Your task to perform on an android device: Empty the shopping cart on costco. Add razer blade to the cart on costco Image 0: 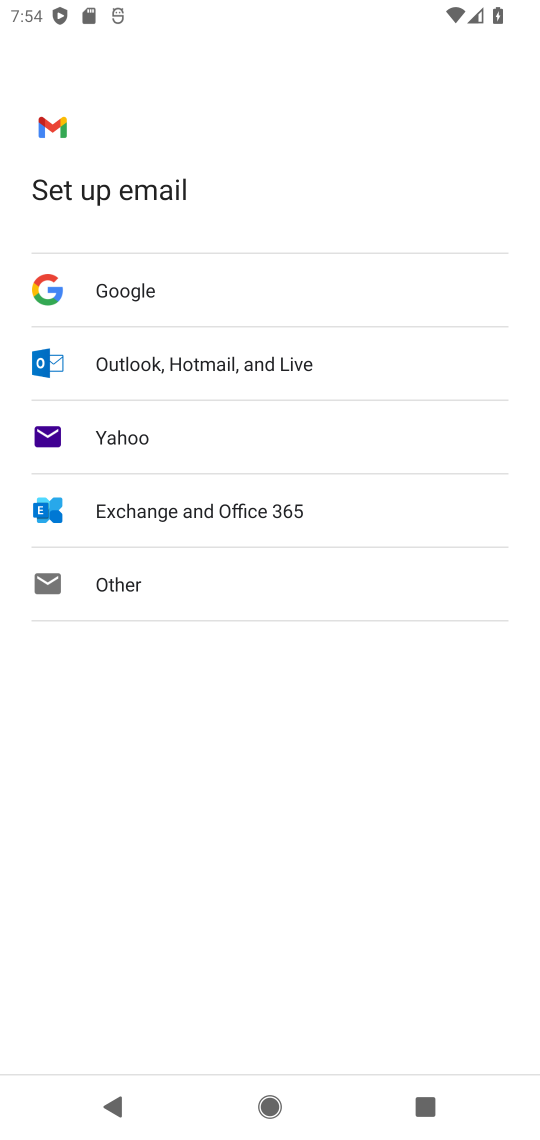
Step 0: press home button
Your task to perform on an android device: Empty the shopping cart on costco. Add razer blade to the cart on costco Image 1: 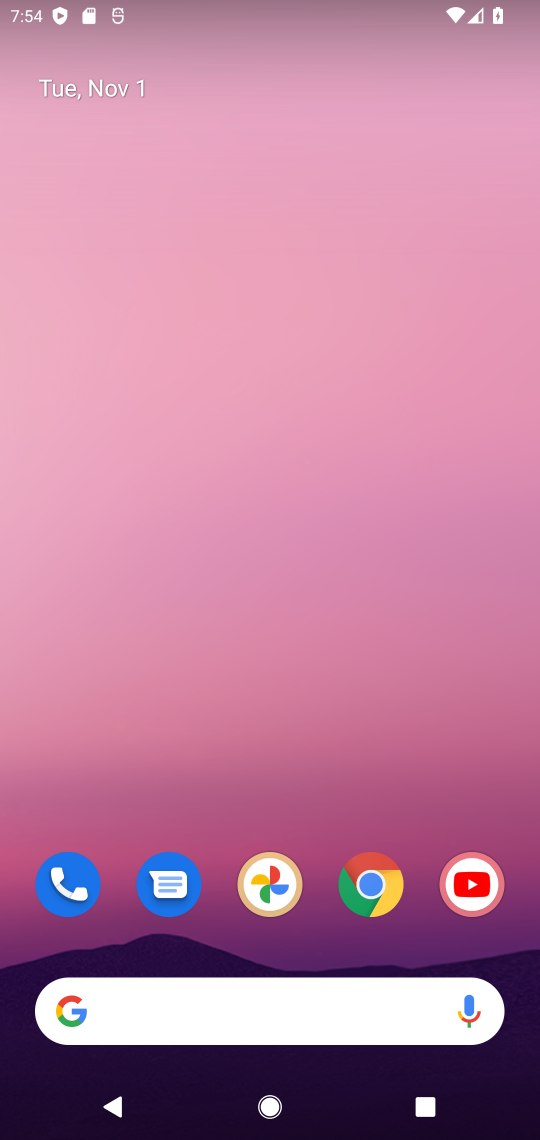
Step 1: click (372, 880)
Your task to perform on an android device: Empty the shopping cart on costco. Add razer blade to the cart on costco Image 2: 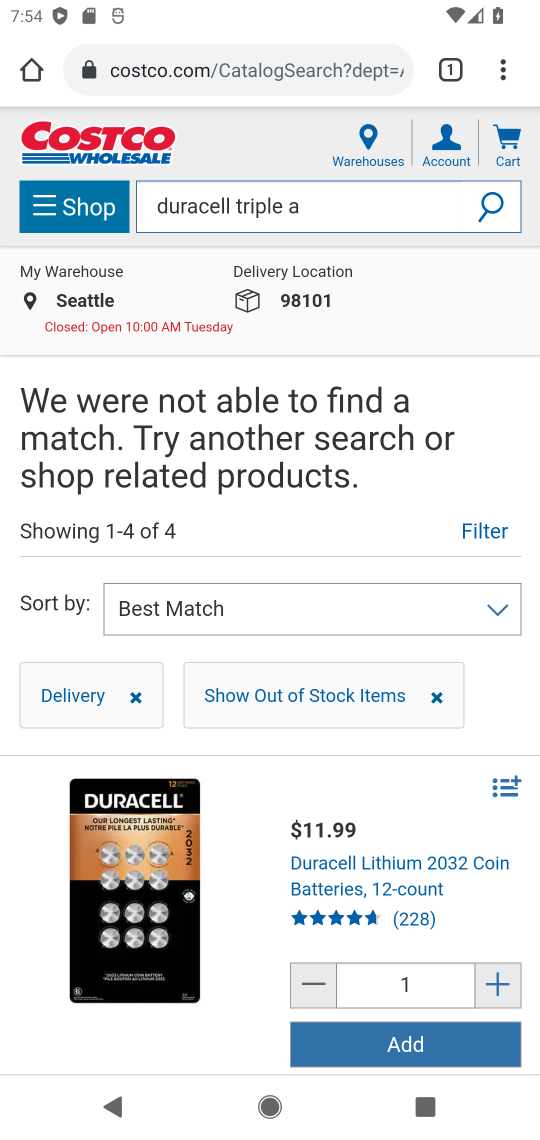
Step 2: click (308, 65)
Your task to perform on an android device: Empty the shopping cart on costco. Add razer blade to the cart on costco Image 3: 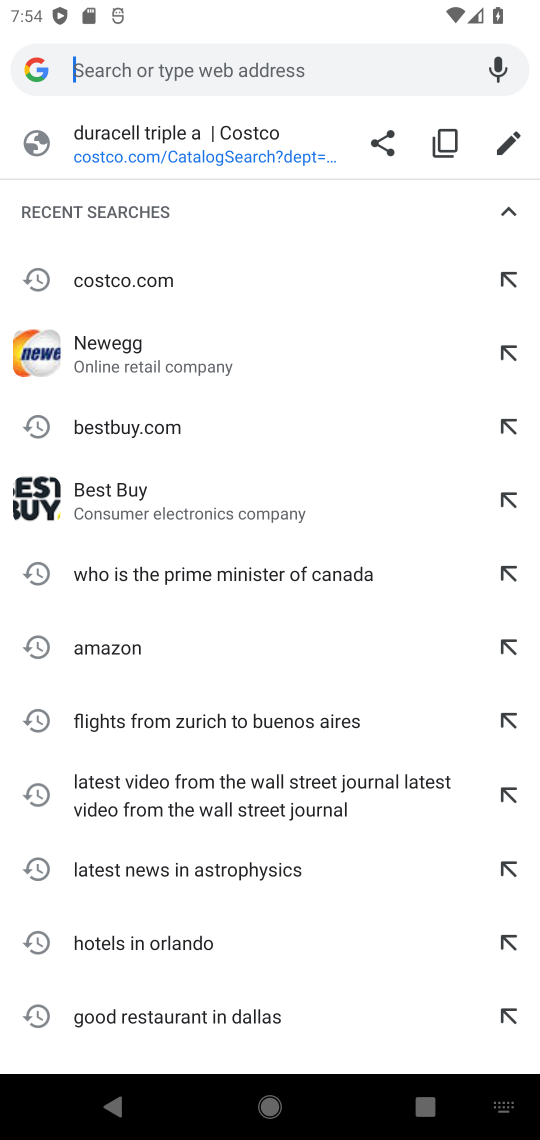
Step 3: type "costco"
Your task to perform on an android device: Empty the shopping cart on costco. Add razer blade to the cart on costco Image 4: 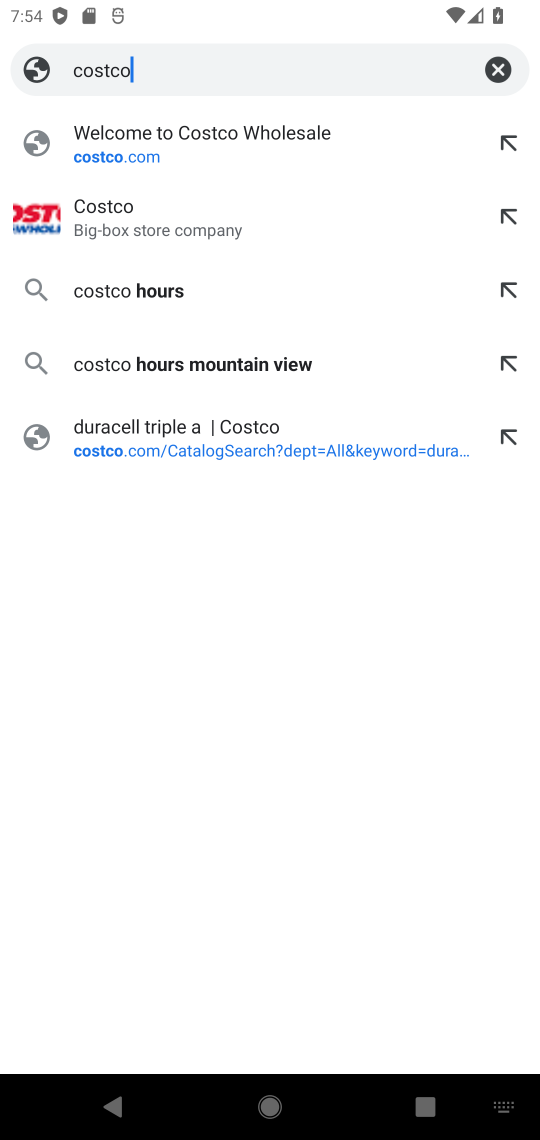
Step 4: click (102, 207)
Your task to perform on an android device: Empty the shopping cart on costco. Add razer blade to the cart on costco Image 5: 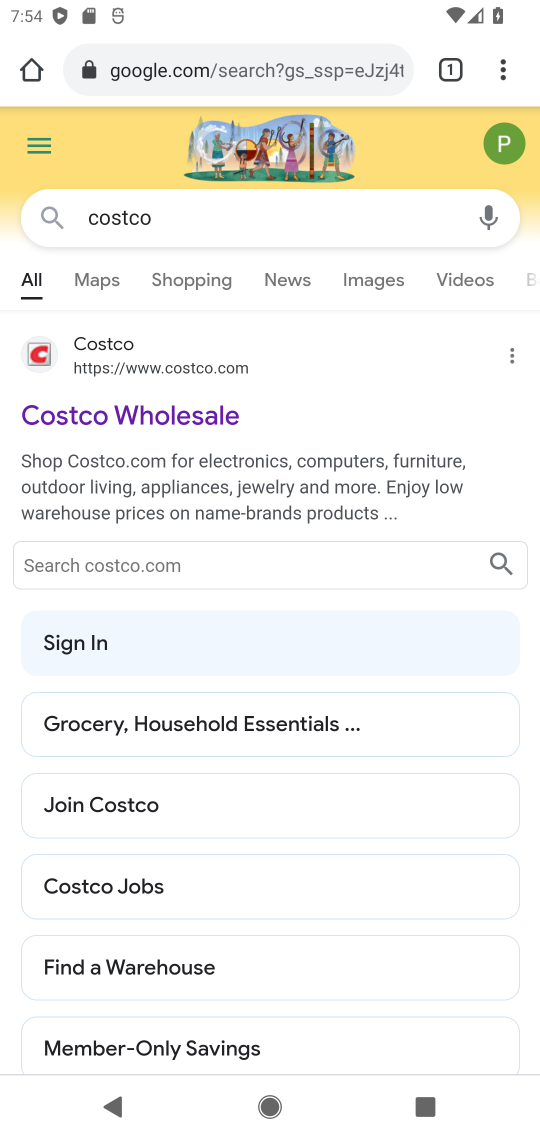
Step 5: click (159, 421)
Your task to perform on an android device: Empty the shopping cart on costco. Add razer blade to the cart on costco Image 6: 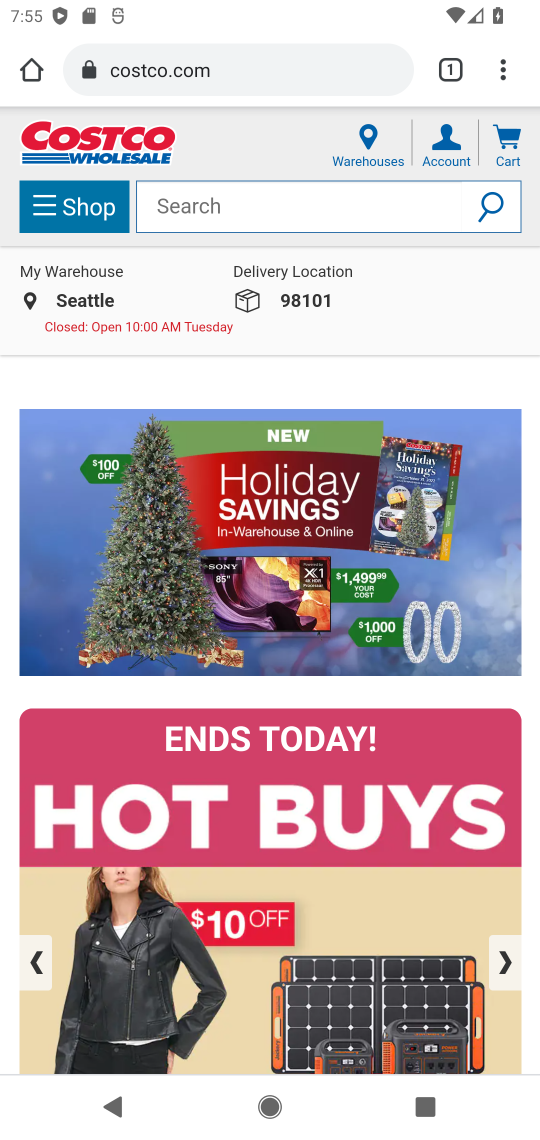
Step 6: click (510, 138)
Your task to perform on an android device: Empty the shopping cart on costco. Add razer blade to the cart on costco Image 7: 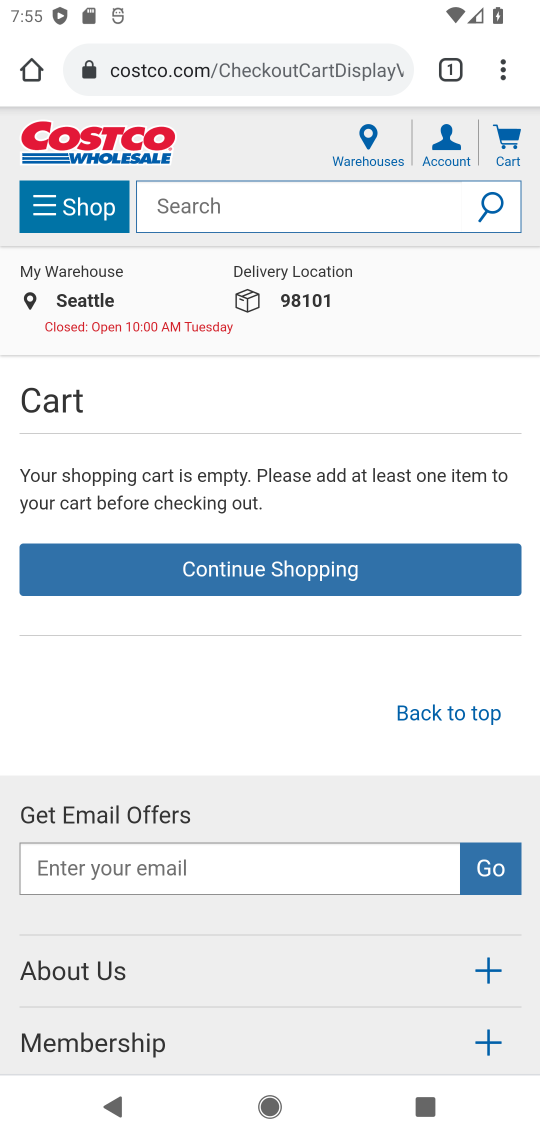
Step 7: click (254, 206)
Your task to perform on an android device: Empty the shopping cart on costco. Add razer blade to the cart on costco Image 8: 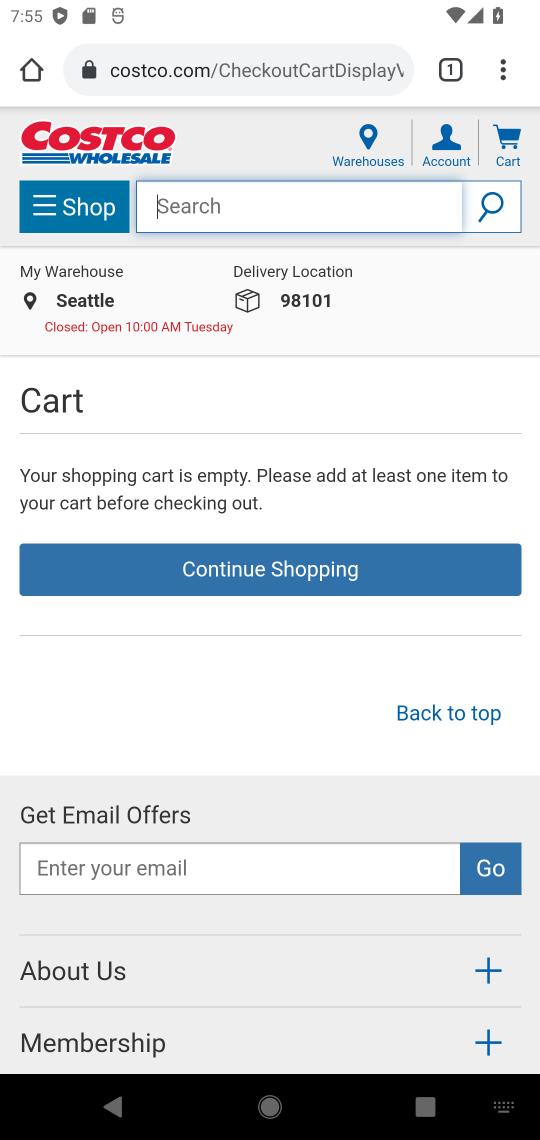
Step 8: type "razer blade"
Your task to perform on an android device: Empty the shopping cart on costco. Add razer blade to the cart on costco Image 9: 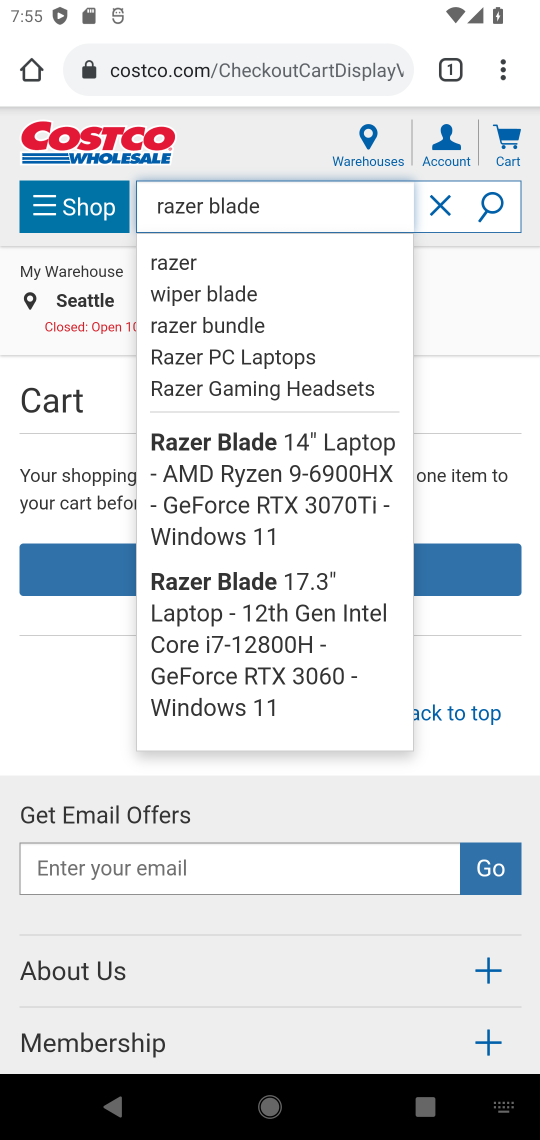
Step 9: click (499, 199)
Your task to perform on an android device: Empty the shopping cart on costco. Add razer blade to the cart on costco Image 10: 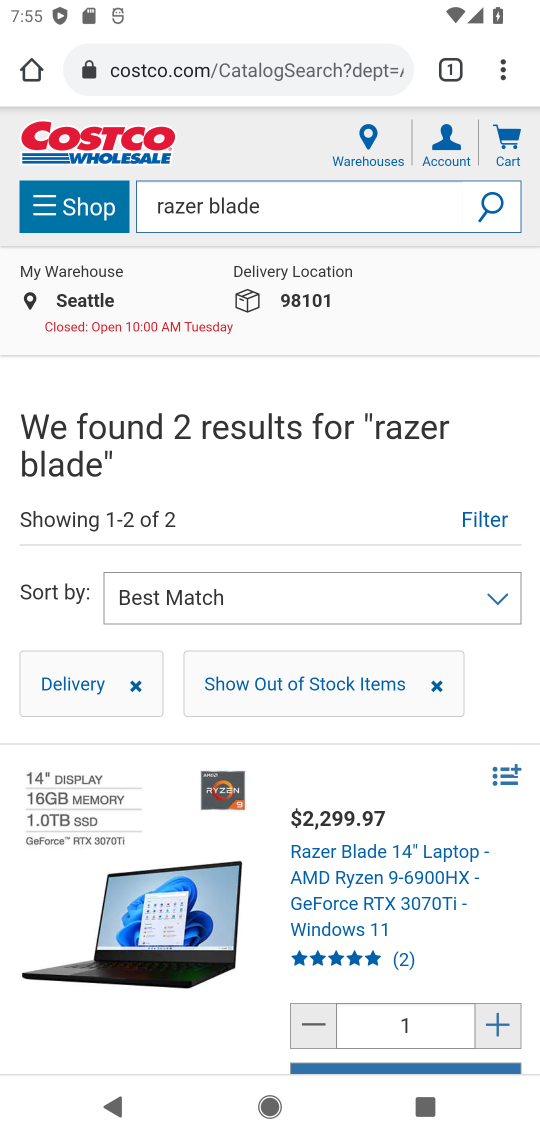
Step 10: click (356, 835)
Your task to perform on an android device: Empty the shopping cart on costco. Add razer blade to the cart on costco Image 11: 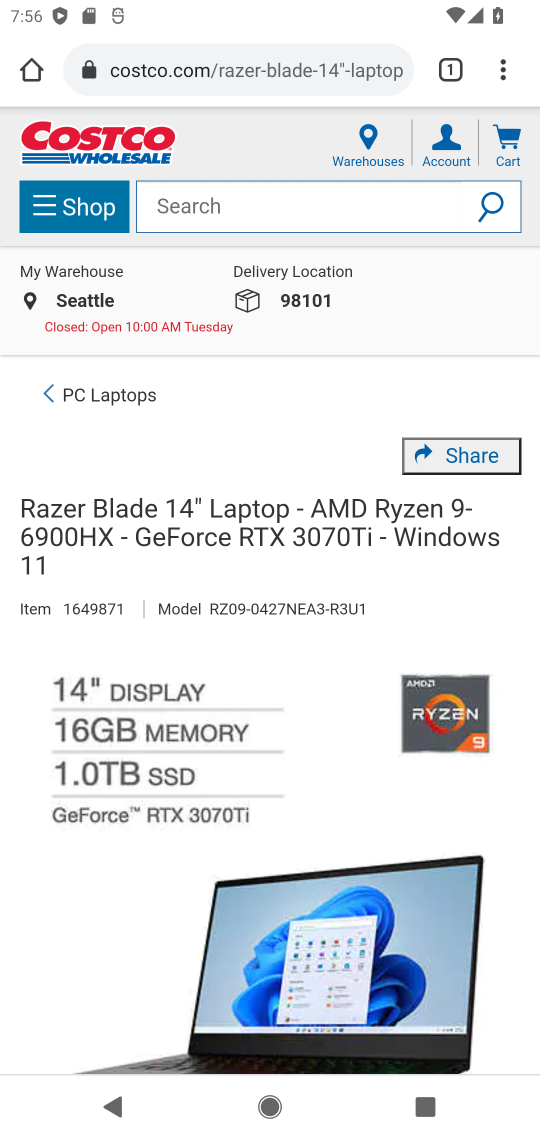
Step 11: drag from (337, 748) to (357, 380)
Your task to perform on an android device: Empty the shopping cart on costco. Add razer blade to the cart on costco Image 12: 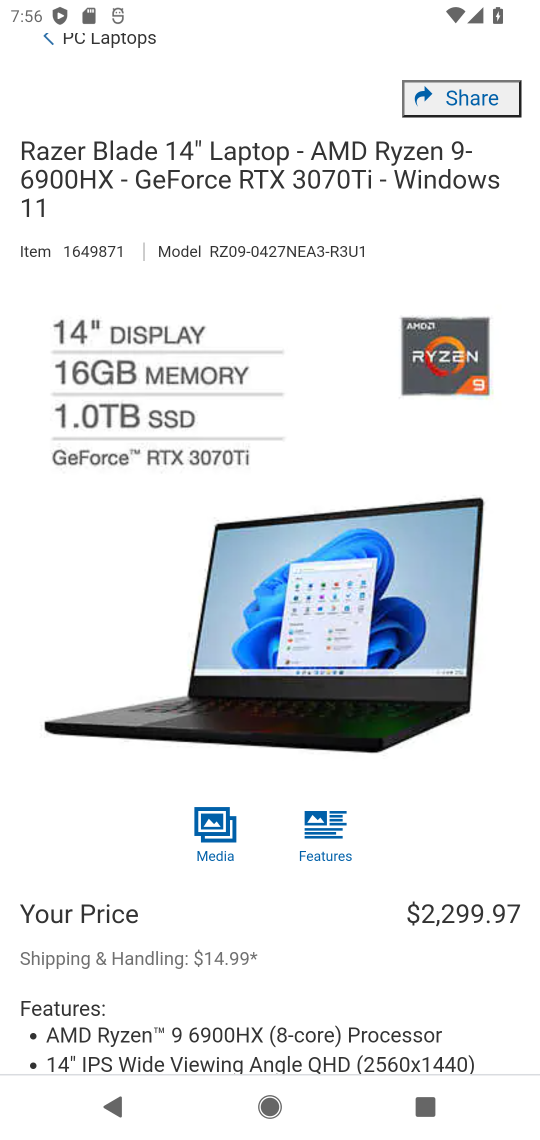
Step 12: drag from (282, 896) to (294, 427)
Your task to perform on an android device: Empty the shopping cart on costco. Add razer blade to the cart on costco Image 13: 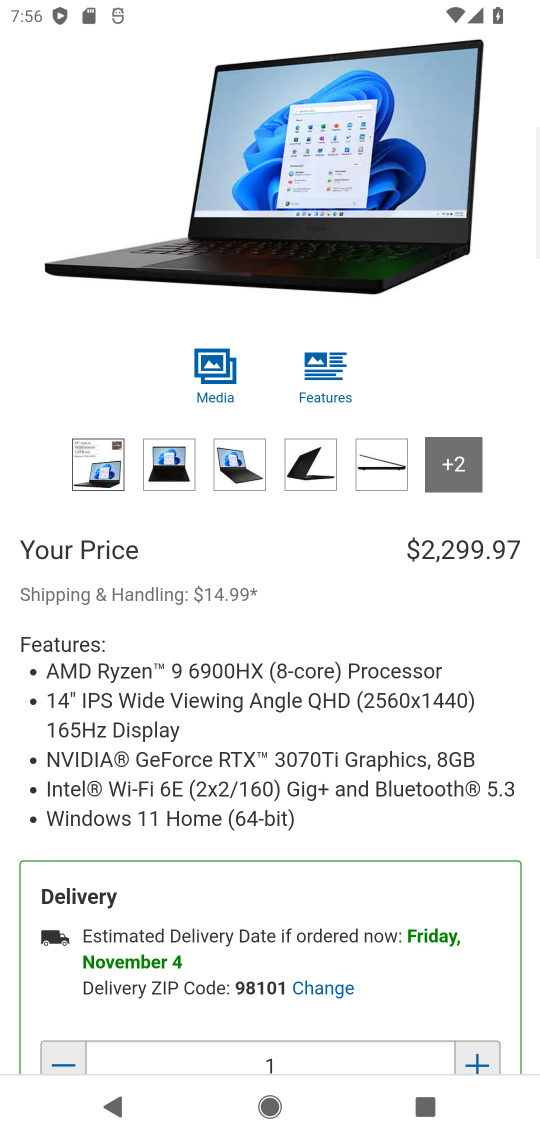
Step 13: drag from (275, 628) to (331, 344)
Your task to perform on an android device: Empty the shopping cart on costco. Add razer blade to the cart on costco Image 14: 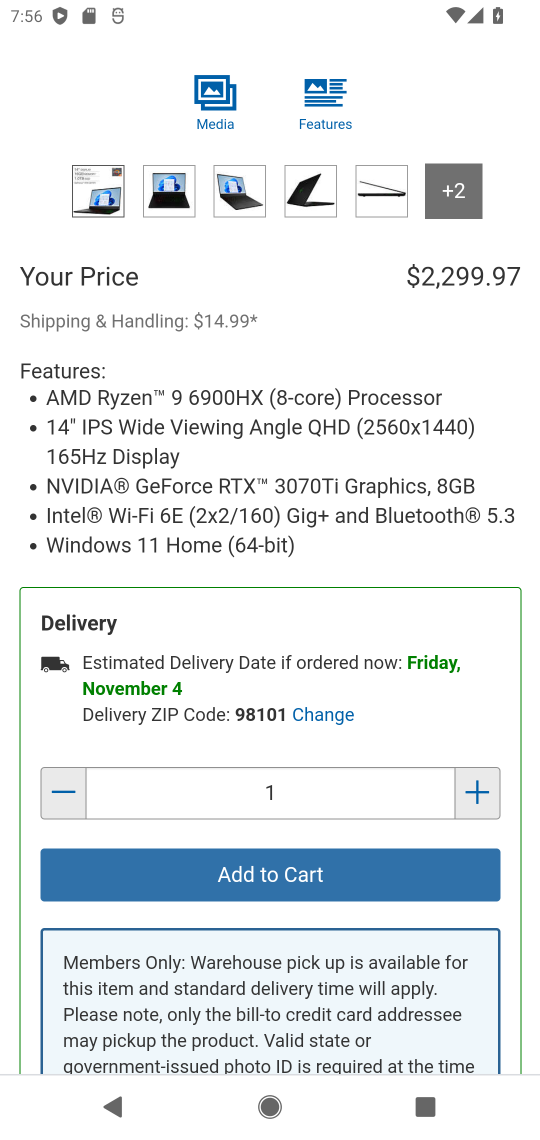
Step 14: click (278, 884)
Your task to perform on an android device: Empty the shopping cart on costco. Add razer blade to the cart on costco Image 15: 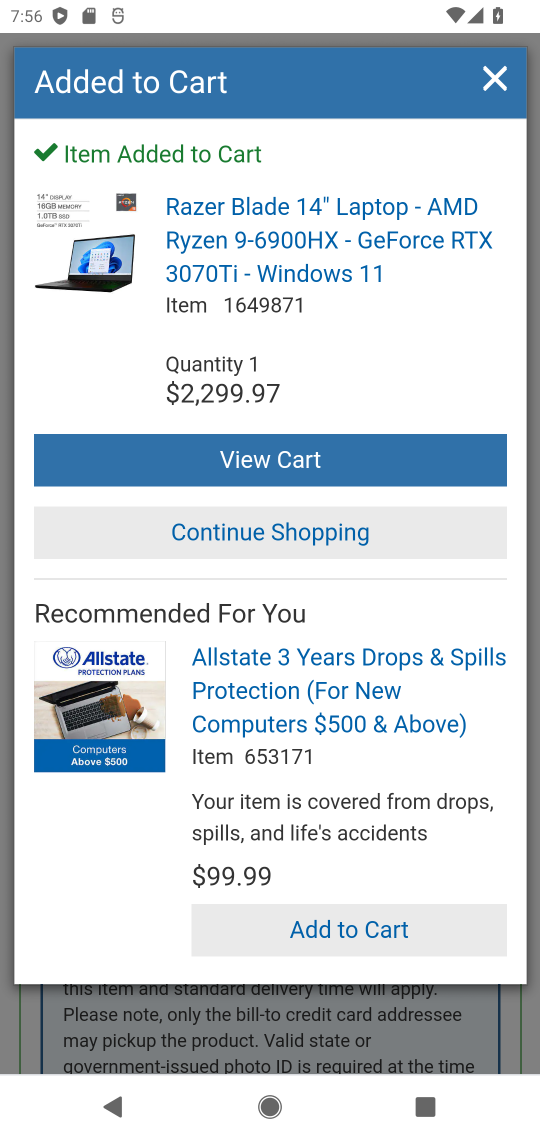
Step 15: click (300, 462)
Your task to perform on an android device: Empty the shopping cart on costco. Add razer blade to the cart on costco Image 16: 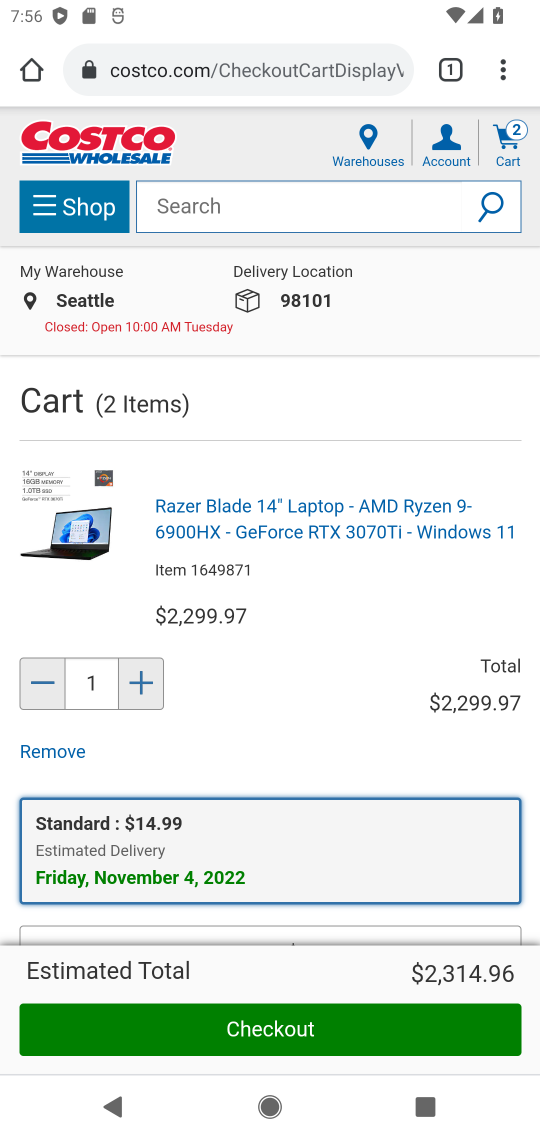
Step 16: task complete